Your task to perform on an android device: toggle location history Image 0: 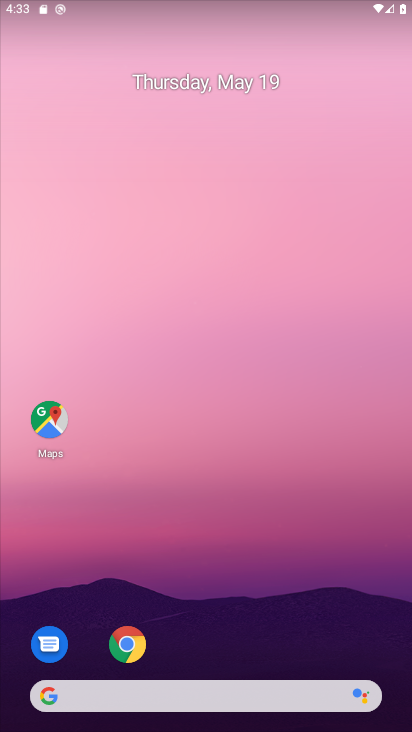
Step 0: press home button
Your task to perform on an android device: toggle location history Image 1: 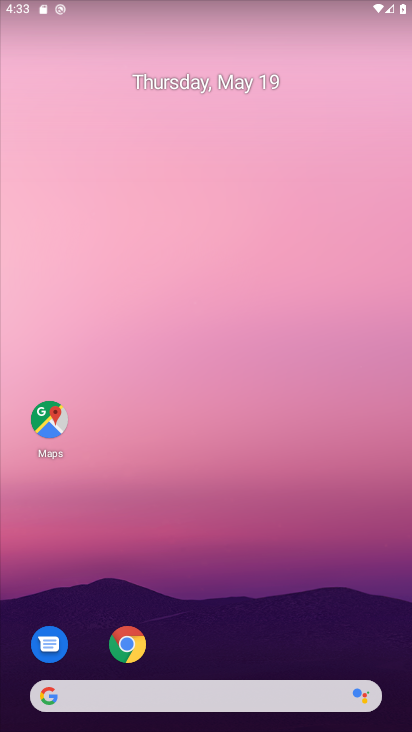
Step 1: drag from (278, 639) to (291, 478)
Your task to perform on an android device: toggle location history Image 2: 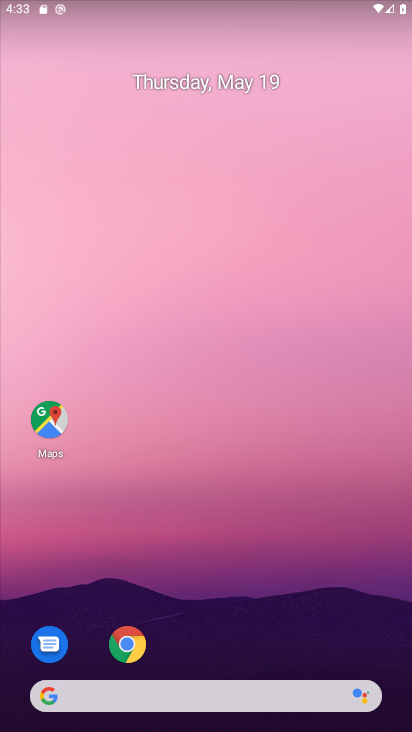
Step 2: click (49, 423)
Your task to perform on an android device: toggle location history Image 3: 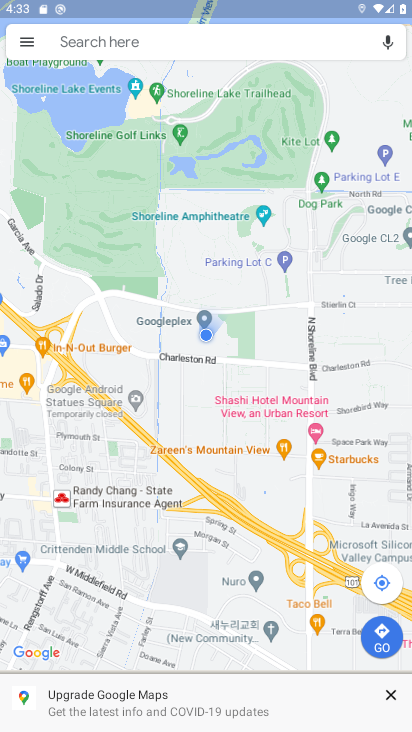
Step 3: click (26, 43)
Your task to perform on an android device: toggle location history Image 4: 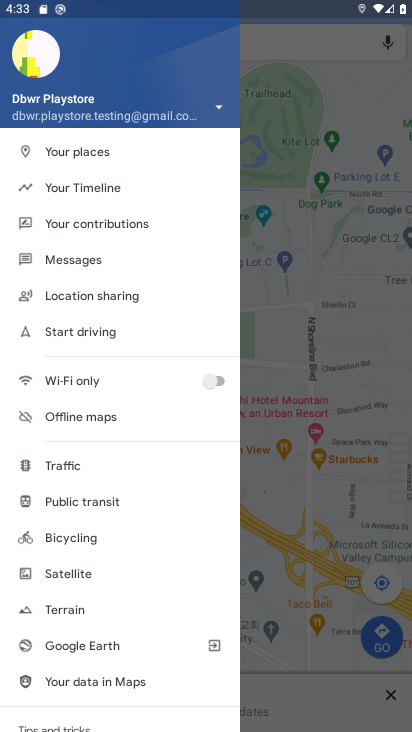
Step 4: click (111, 587)
Your task to perform on an android device: toggle location history Image 5: 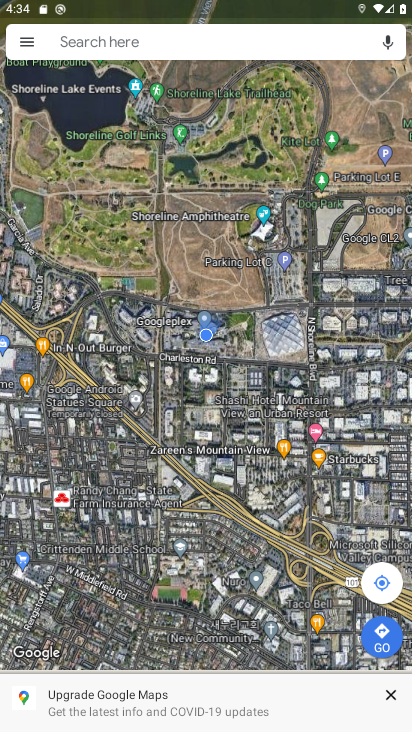
Step 5: click (34, 45)
Your task to perform on an android device: toggle location history Image 6: 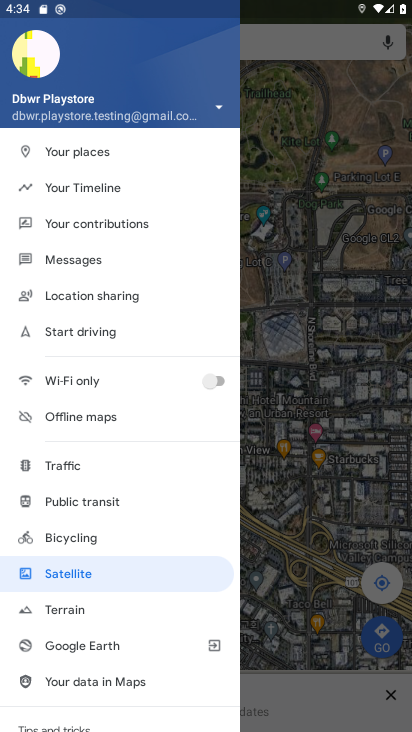
Step 6: click (64, 183)
Your task to perform on an android device: toggle location history Image 7: 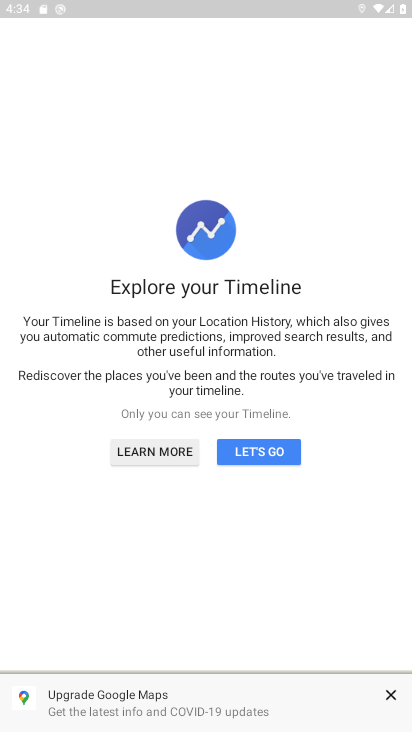
Step 7: click (257, 442)
Your task to perform on an android device: toggle location history Image 8: 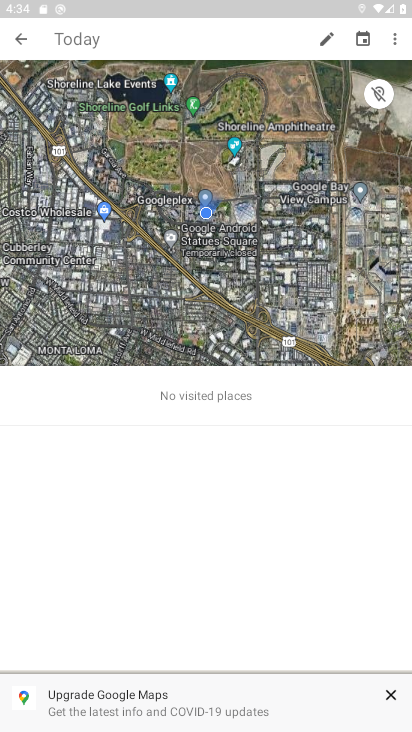
Step 8: click (393, 40)
Your task to perform on an android device: toggle location history Image 9: 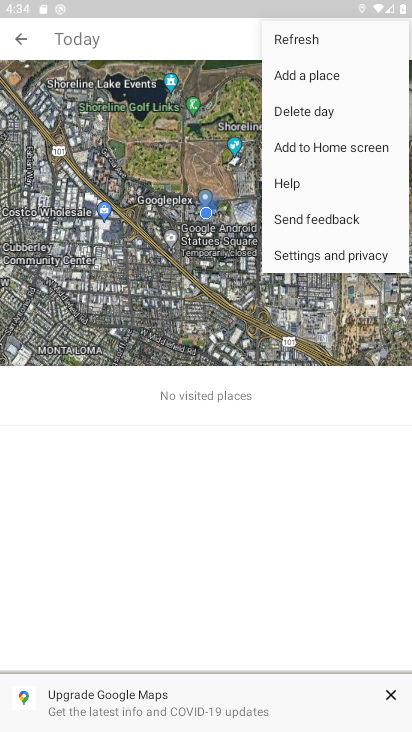
Step 9: click (360, 261)
Your task to perform on an android device: toggle location history Image 10: 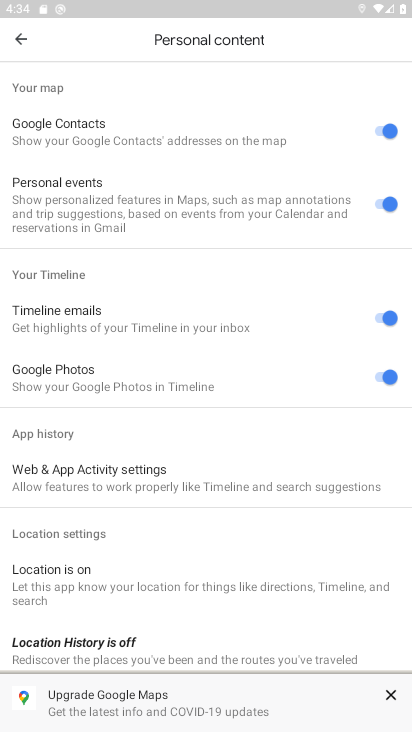
Step 10: click (248, 409)
Your task to perform on an android device: toggle location history Image 11: 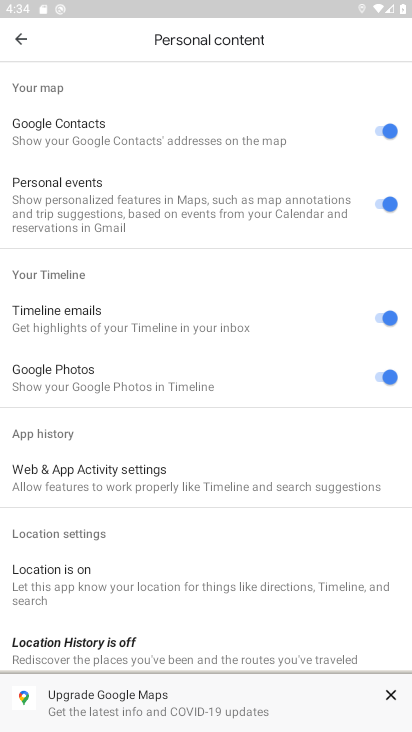
Step 11: drag from (210, 499) to (215, 260)
Your task to perform on an android device: toggle location history Image 12: 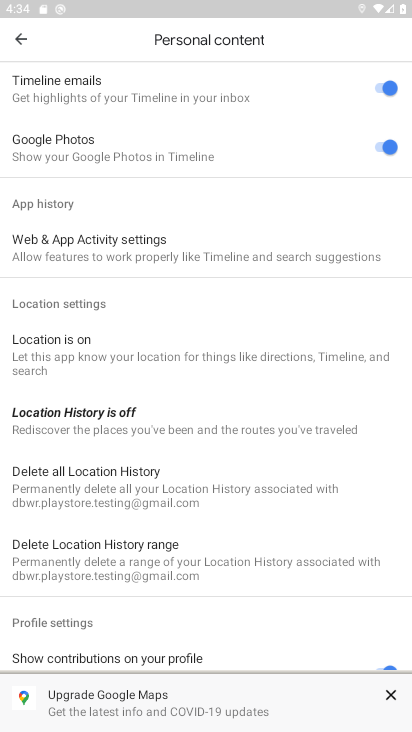
Step 12: click (151, 460)
Your task to perform on an android device: toggle location history Image 13: 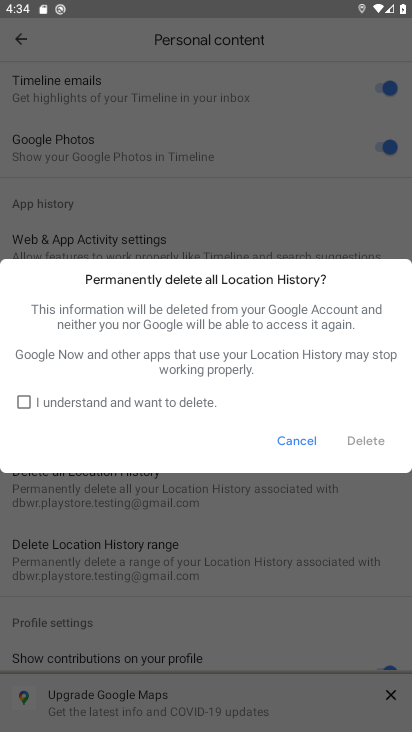
Step 13: click (288, 447)
Your task to perform on an android device: toggle location history Image 14: 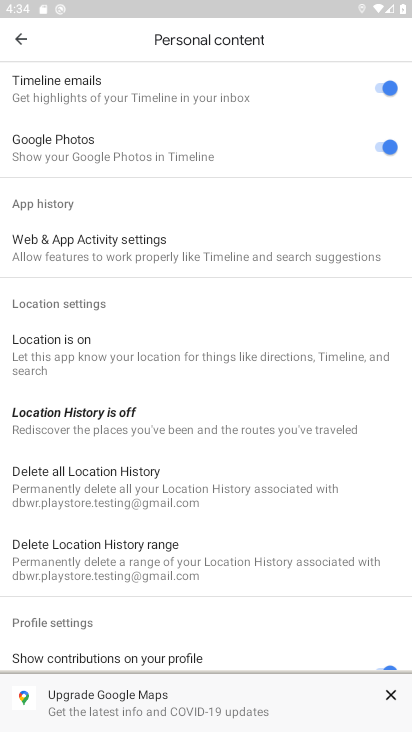
Step 14: click (186, 407)
Your task to perform on an android device: toggle location history Image 15: 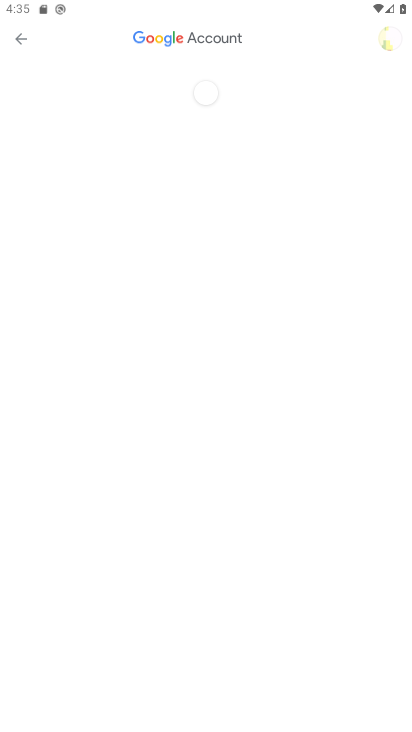
Step 15: click (287, 560)
Your task to perform on an android device: toggle location history Image 16: 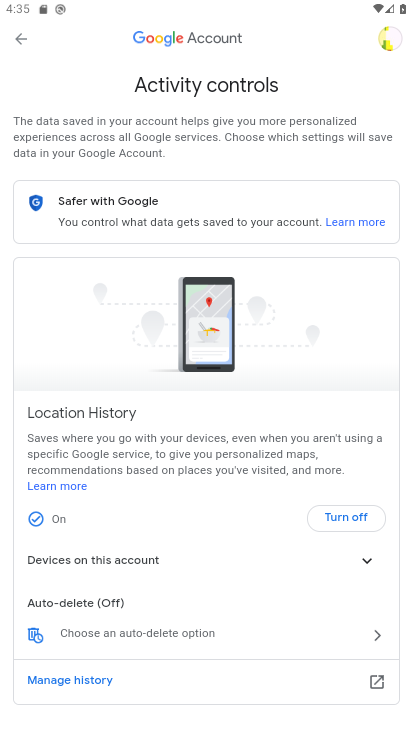
Step 16: drag from (233, 594) to (269, 443)
Your task to perform on an android device: toggle location history Image 17: 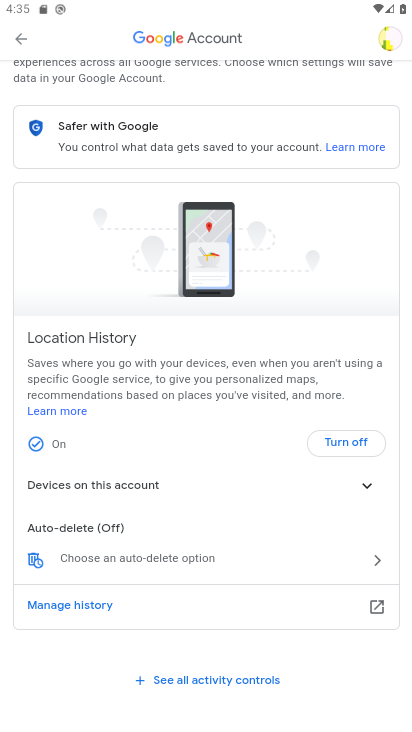
Step 17: click (330, 440)
Your task to perform on an android device: toggle location history Image 18: 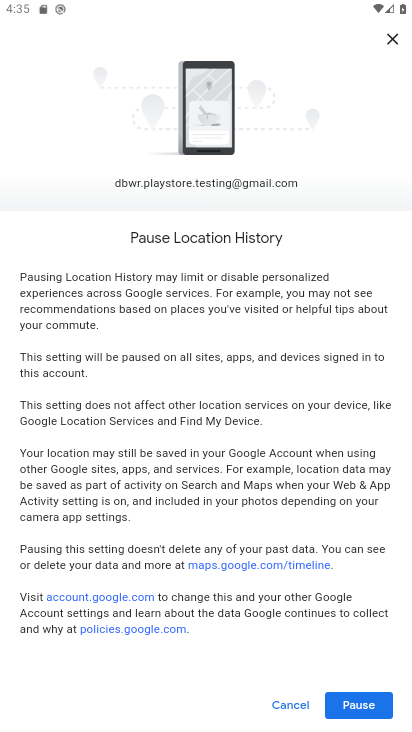
Step 18: click (365, 707)
Your task to perform on an android device: toggle location history Image 19: 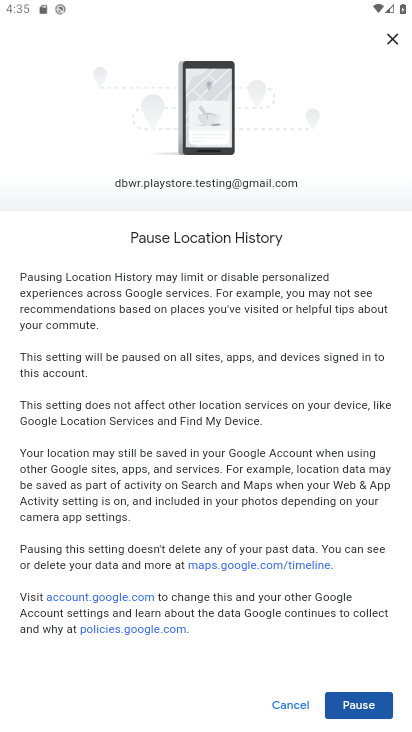
Step 19: click (365, 707)
Your task to perform on an android device: toggle location history Image 20: 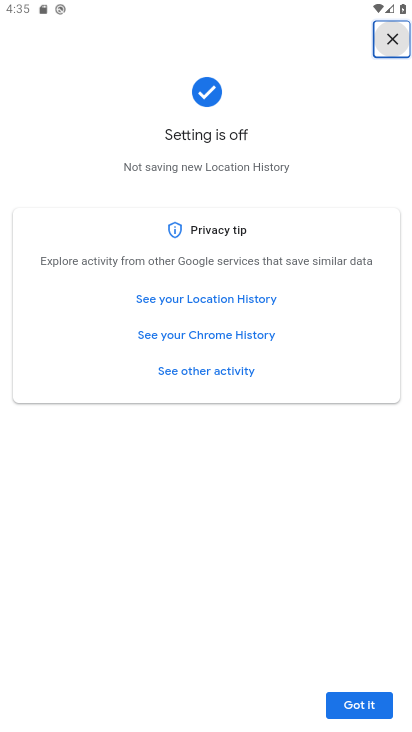
Step 20: task complete